Your task to perform on an android device: Add "razer naga" to the cart on amazon, then select checkout. Image 0: 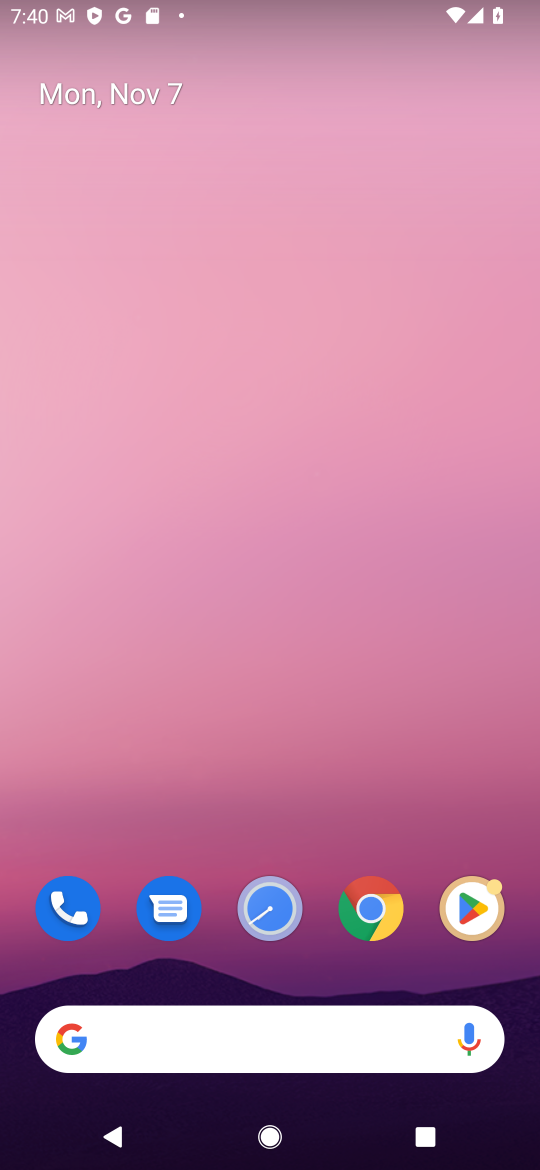
Step 0: click (324, 1033)
Your task to perform on an android device: Add "razer naga" to the cart on amazon, then select checkout. Image 1: 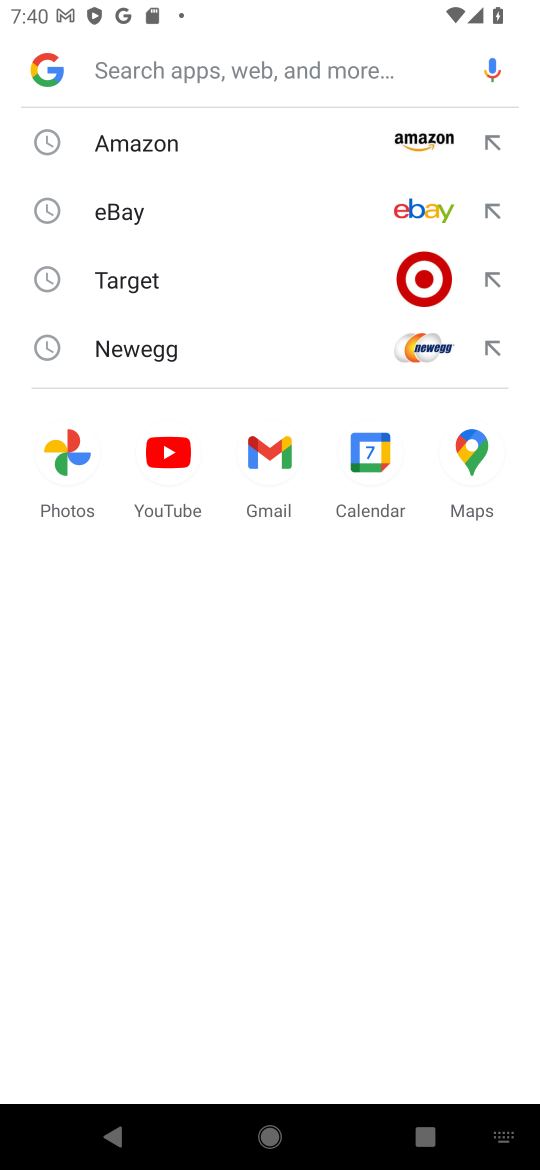
Step 1: type "amazon"
Your task to perform on an android device: Add "razer naga" to the cart on amazon, then select checkout. Image 2: 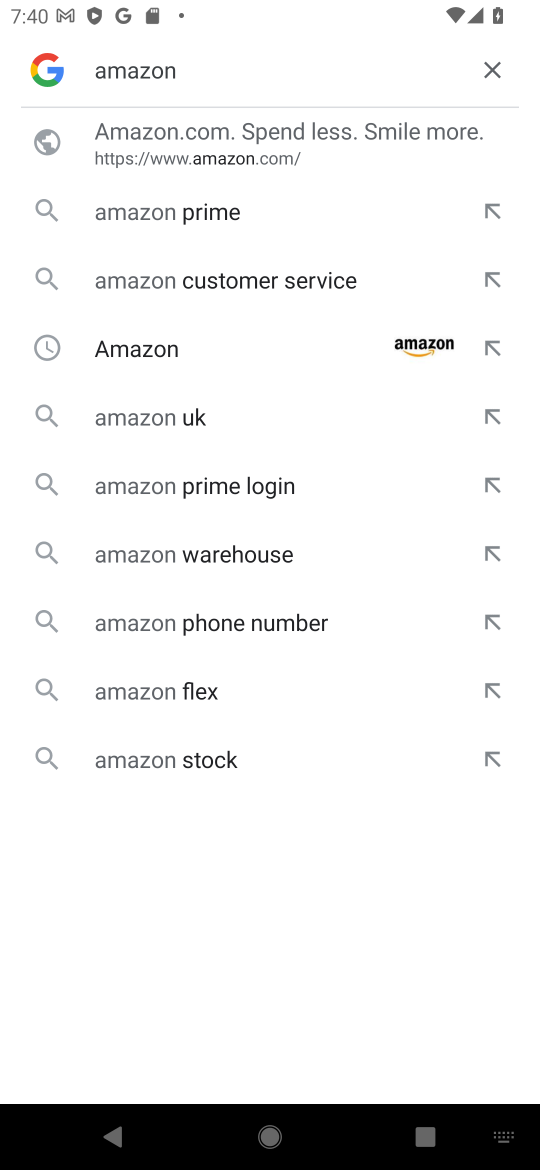
Step 2: click (191, 149)
Your task to perform on an android device: Add "razer naga" to the cart on amazon, then select checkout. Image 3: 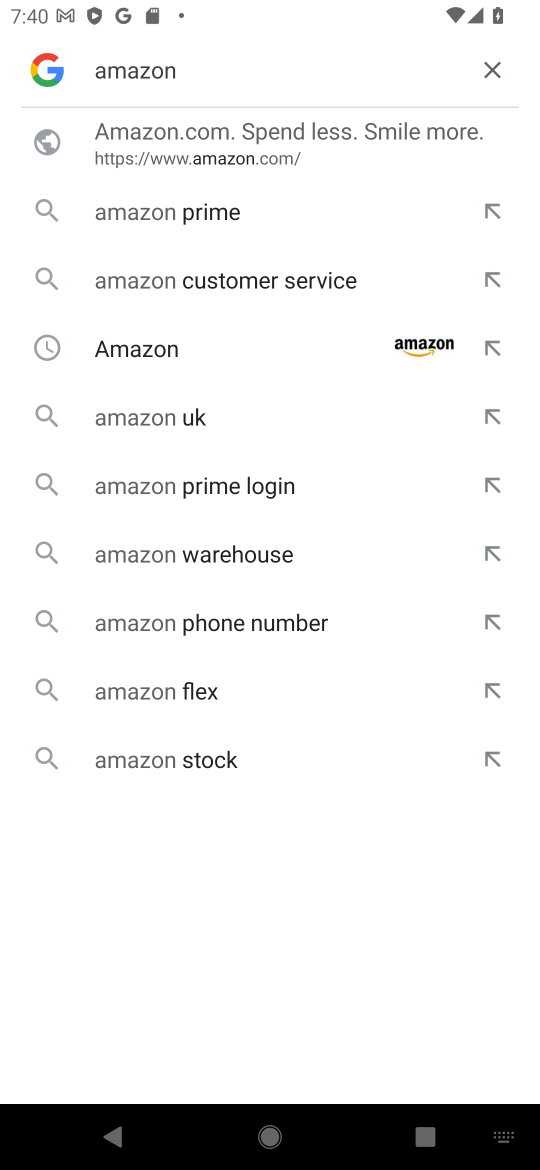
Step 3: task complete